Your task to perform on an android device: check google app version Image 0: 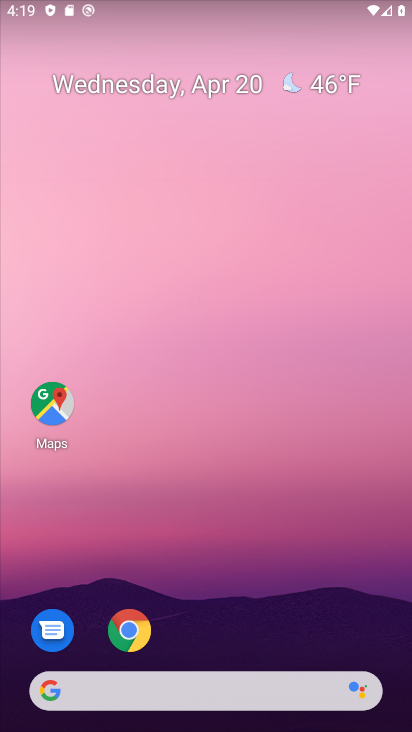
Step 0: drag from (189, 669) to (233, 228)
Your task to perform on an android device: check google app version Image 1: 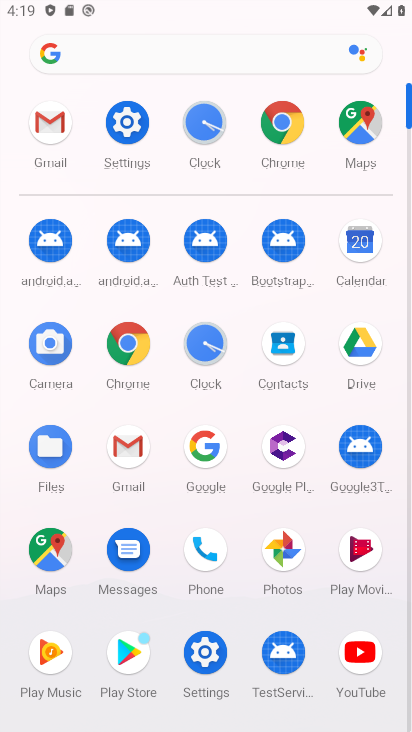
Step 1: click (198, 443)
Your task to perform on an android device: check google app version Image 2: 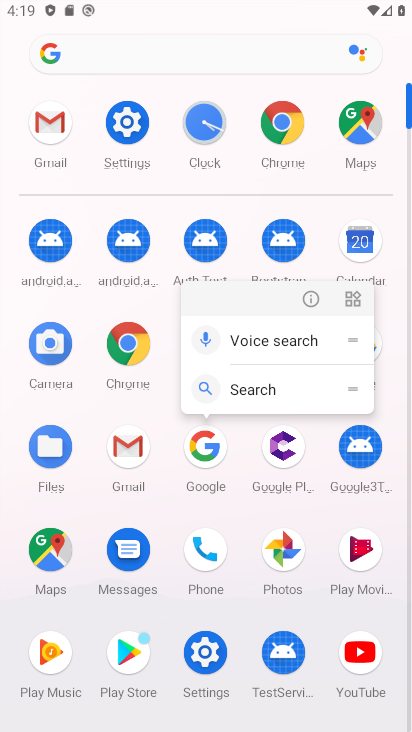
Step 2: click (311, 298)
Your task to perform on an android device: check google app version Image 3: 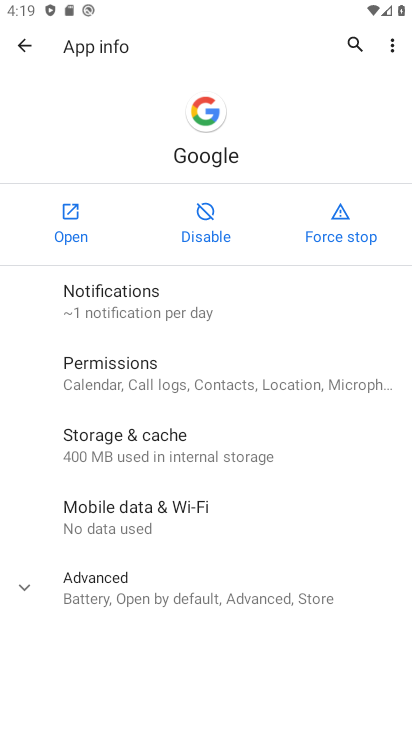
Step 3: click (141, 595)
Your task to perform on an android device: check google app version Image 4: 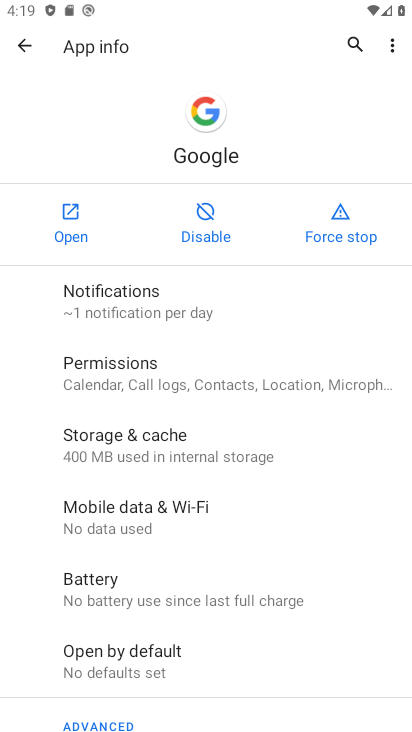
Step 4: task complete